Your task to perform on an android device: turn off picture-in-picture Image 0: 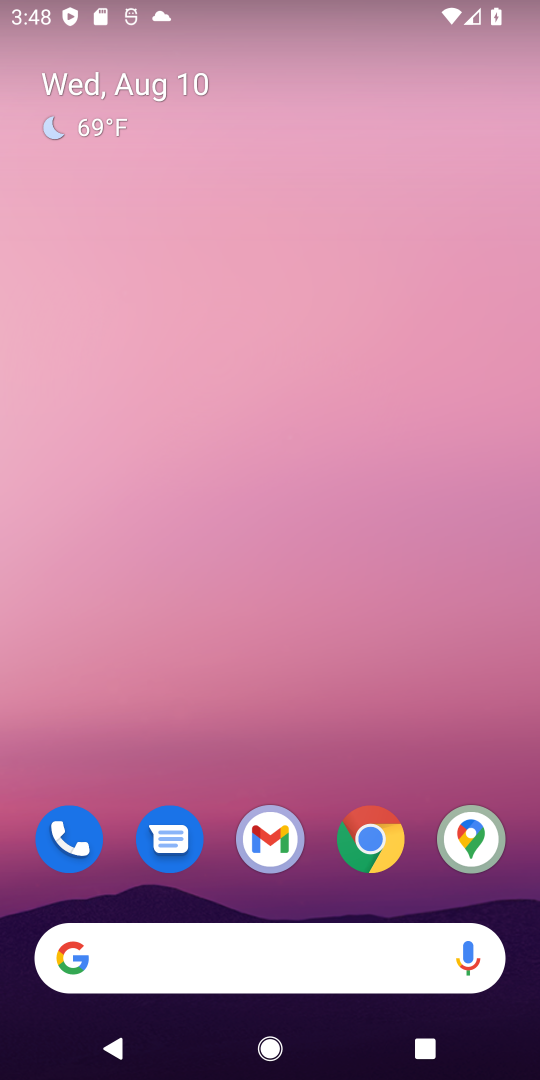
Step 0: click (375, 831)
Your task to perform on an android device: turn off picture-in-picture Image 1: 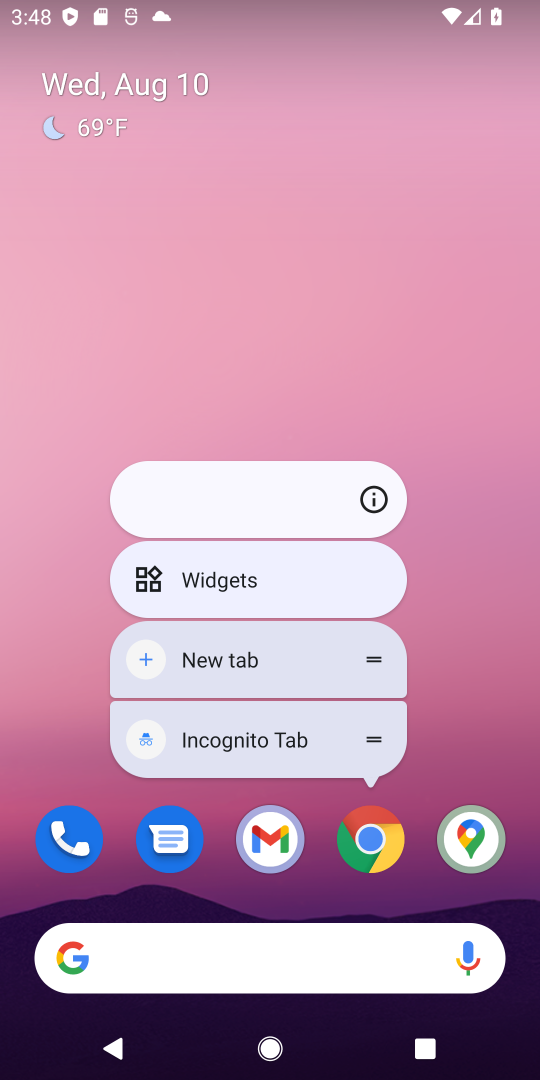
Step 1: click (379, 490)
Your task to perform on an android device: turn off picture-in-picture Image 2: 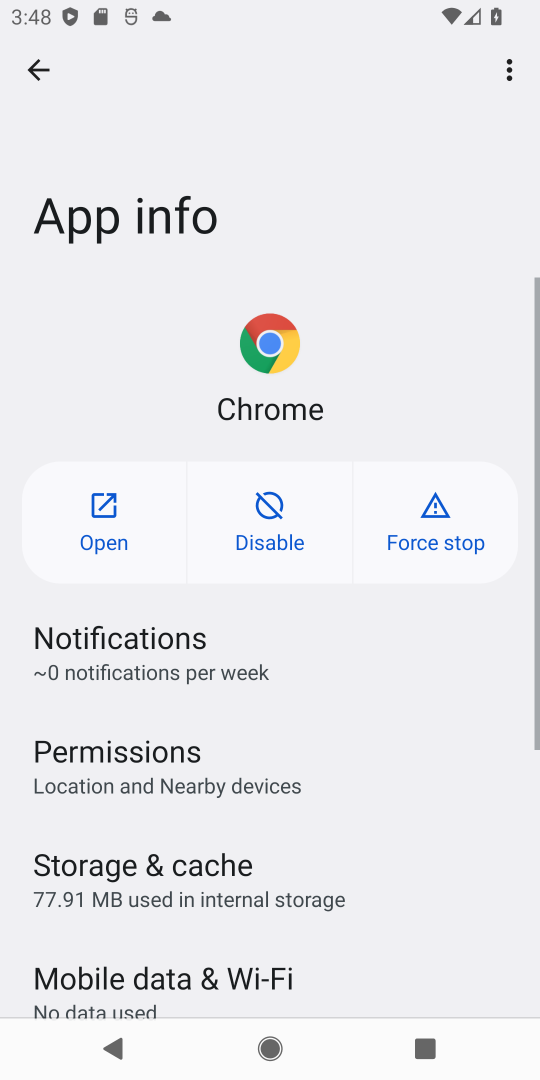
Step 2: drag from (323, 925) to (360, 7)
Your task to perform on an android device: turn off picture-in-picture Image 3: 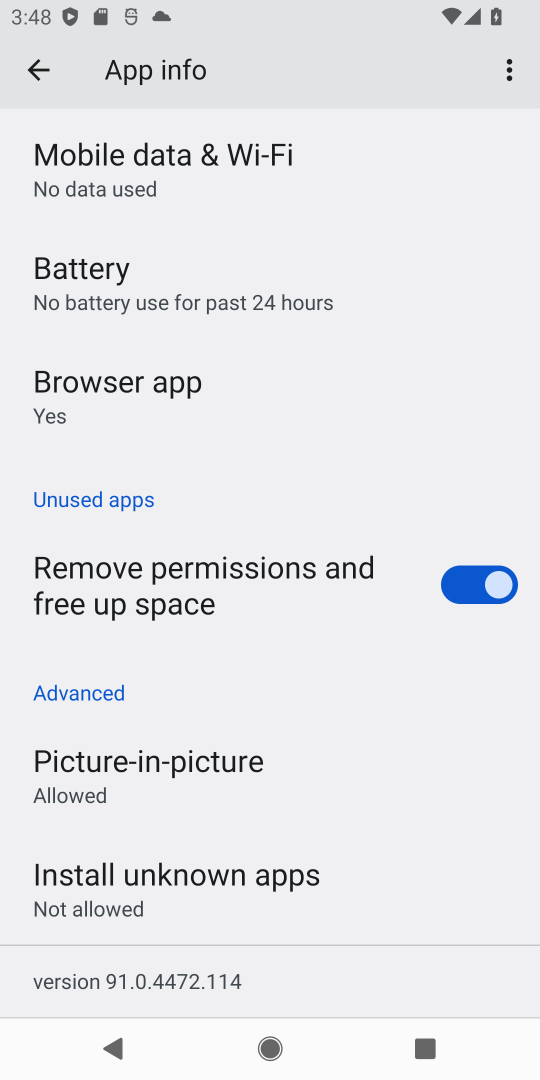
Step 3: click (236, 767)
Your task to perform on an android device: turn off picture-in-picture Image 4: 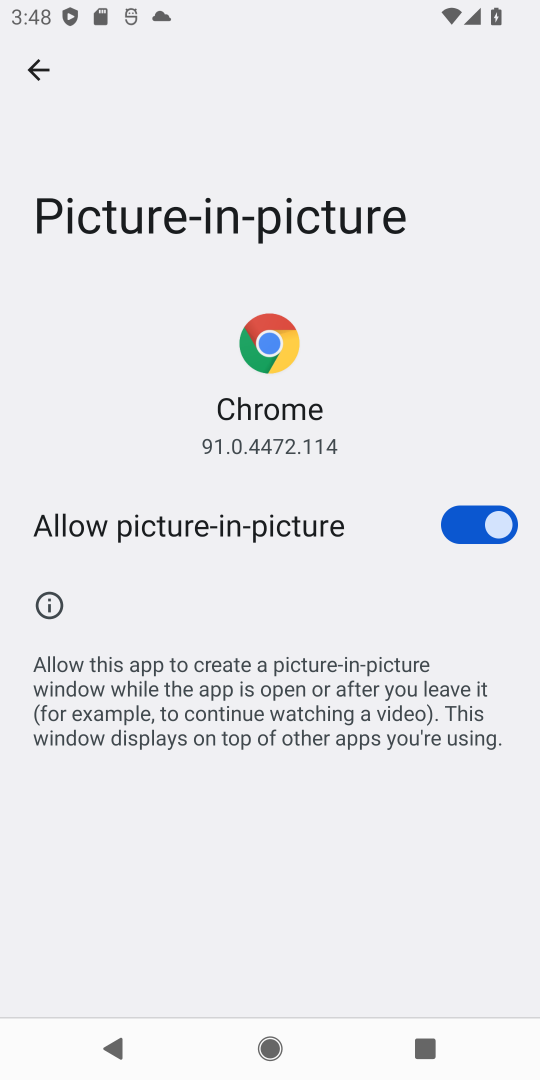
Step 4: click (474, 529)
Your task to perform on an android device: turn off picture-in-picture Image 5: 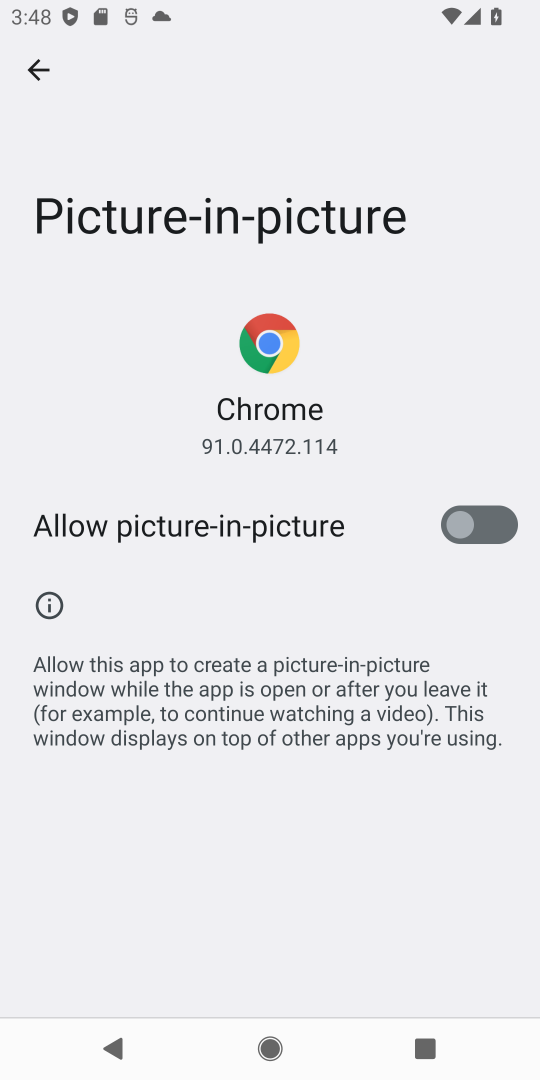
Step 5: task complete